Your task to perform on an android device: clear history in the chrome app Image 0: 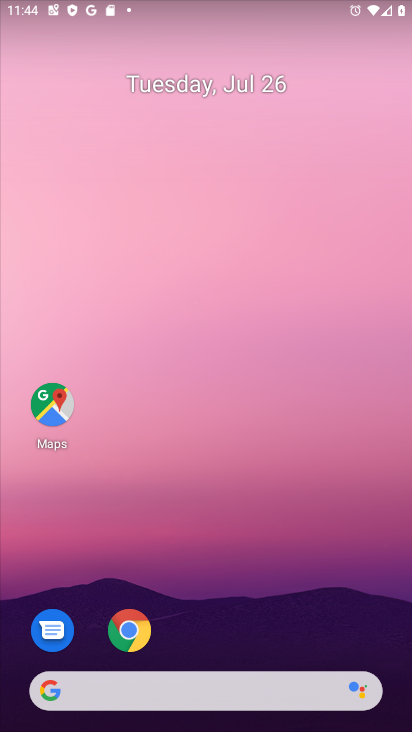
Step 0: click (138, 625)
Your task to perform on an android device: clear history in the chrome app Image 1: 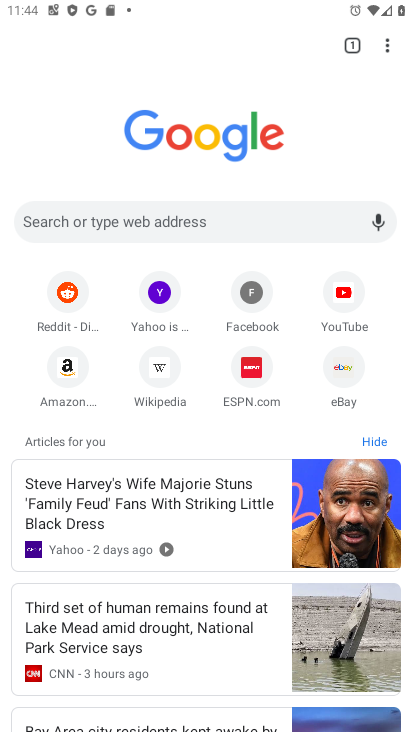
Step 1: click (383, 32)
Your task to perform on an android device: clear history in the chrome app Image 2: 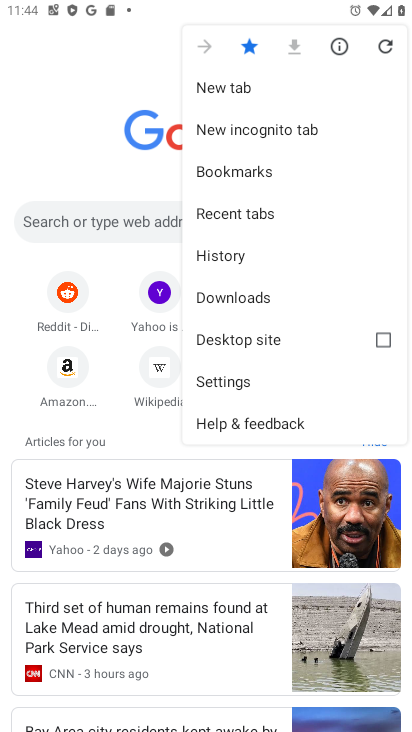
Step 2: click (270, 258)
Your task to perform on an android device: clear history in the chrome app Image 3: 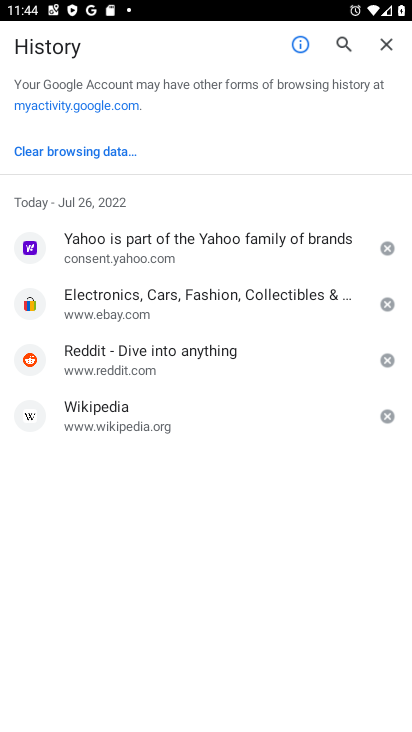
Step 3: click (80, 152)
Your task to perform on an android device: clear history in the chrome app Image 4: 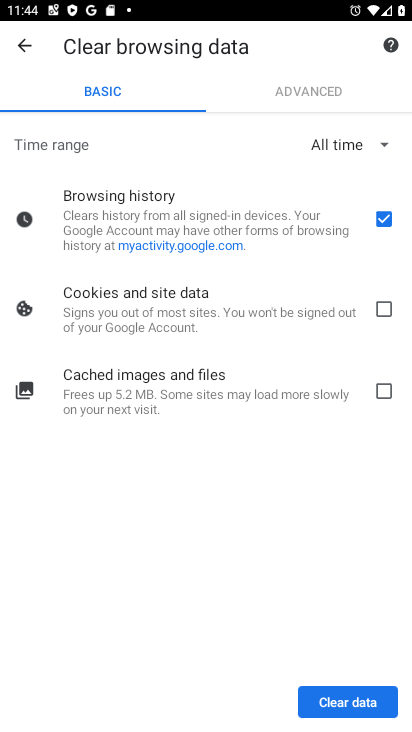
Step 4: click (351, 707)
Your task to perform on an android device: clear history in the chrome app Image 5: 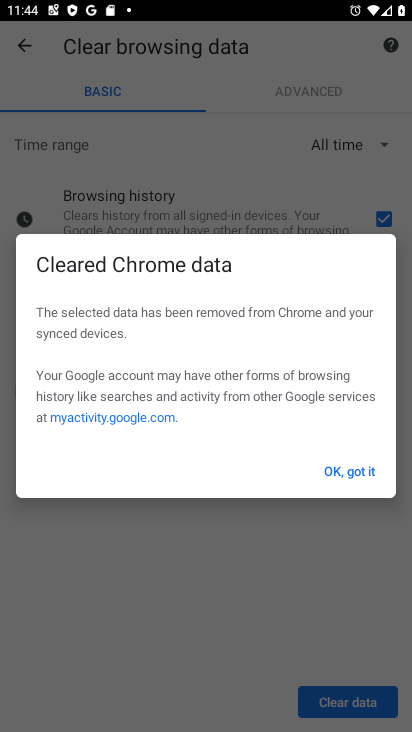
Step 5: click (342, 470)
Your task to perform on an android device: clear history in the chrome app Image 6: 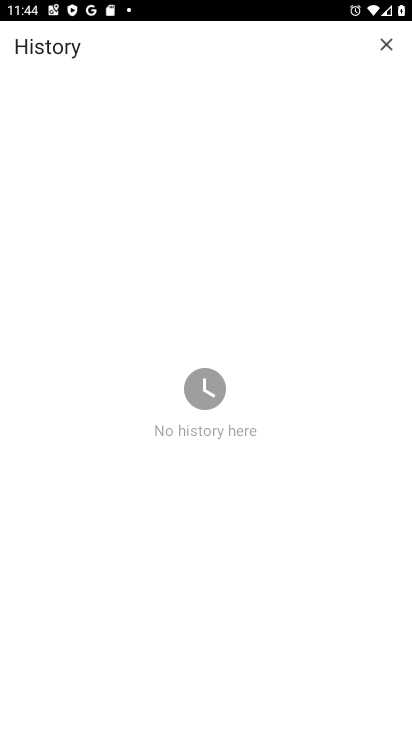
Step 6: task complete